Your task to perform on an android device: open device folders in google photos Image 0: 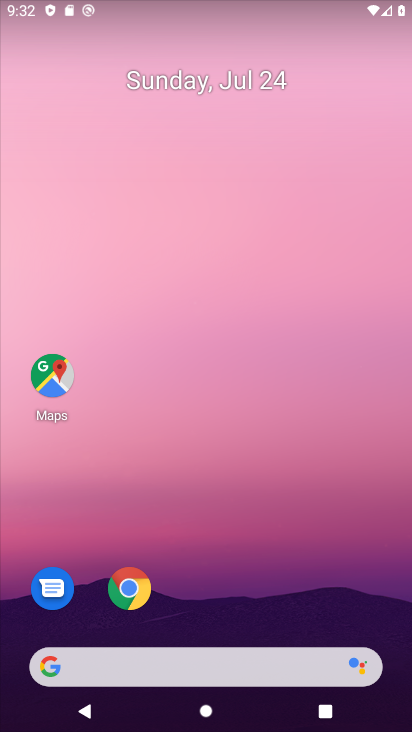
Step 0: drag from (312, 639) to (339, 49)
Your task to perform on an android device: open device folders in google photos Image 1: 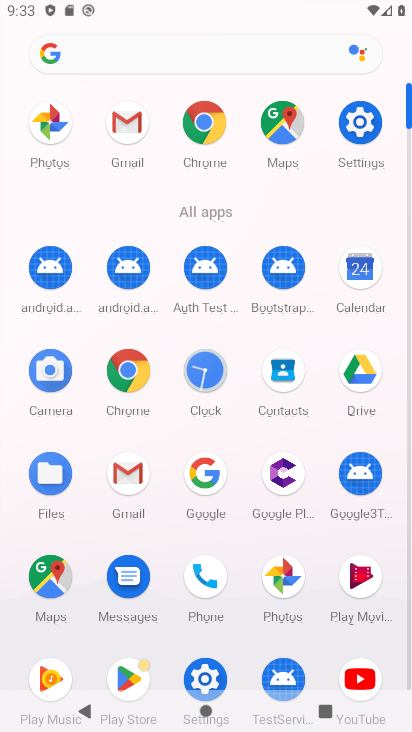
Step 1: click (297, 569)
Your task to perform on an android device: open device folders in google photos Image 2: 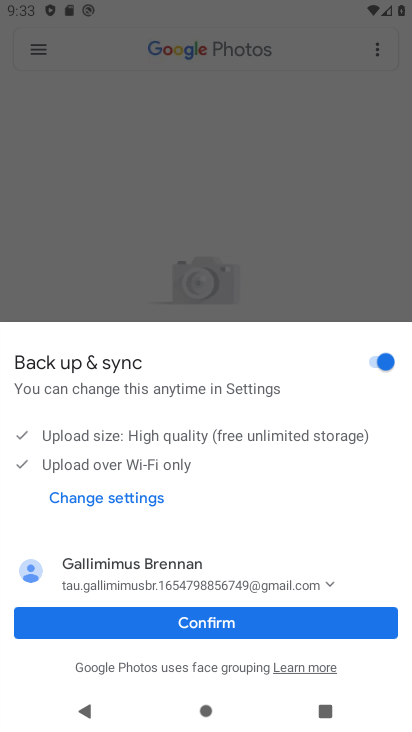
Step 2: click (232, 622)
Your task to perform on an android device: open device folders in google photos Image 3: 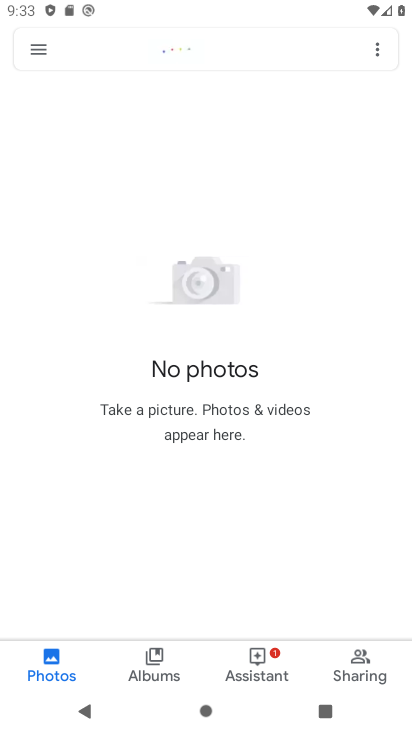
Step 3: click (43, 39)
Your task to perform on an android device: open device folders in google photos Image 4: 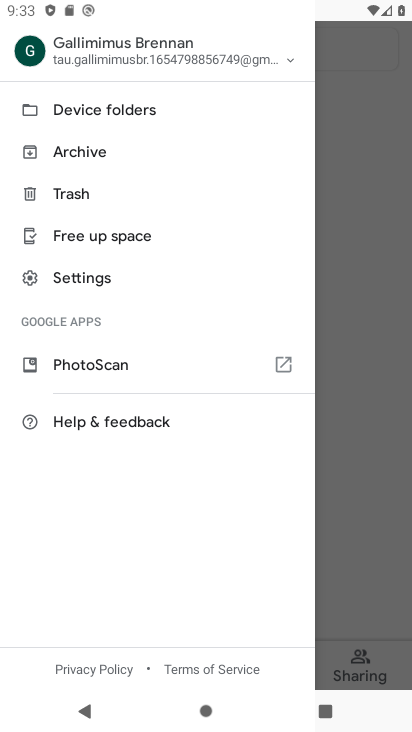
Step 4: click (81, 97)
Your task to perform on an android device: open device folders in google photos Image 5: 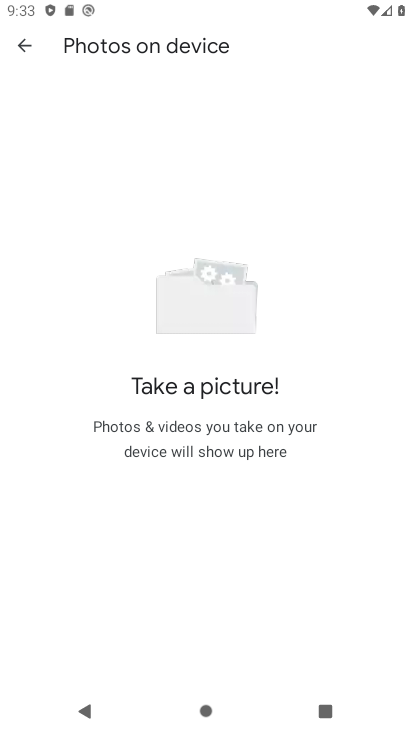
Step 5: task complete